Your task to perform on an android device: toggle wifi Image 0: 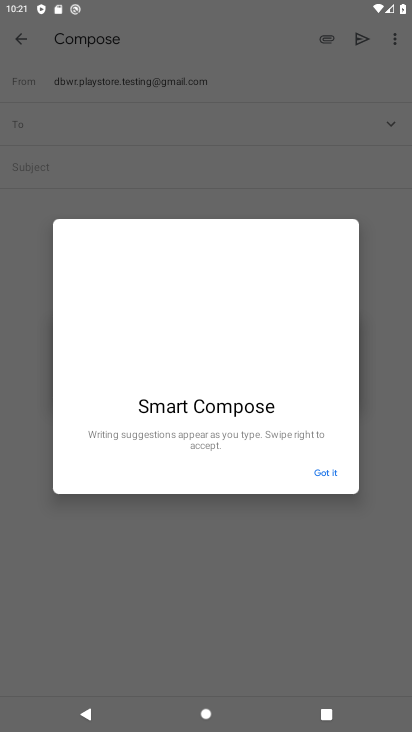
Step 0: press home button
Your task to perform on an android device: toggle wifi Image 1: 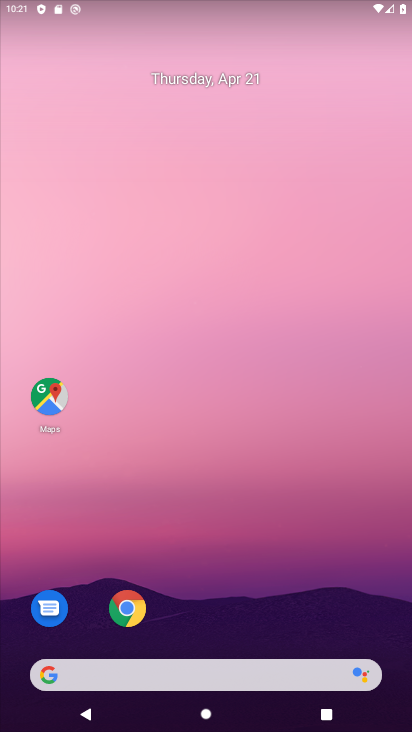
Step 1: drag from (232, 466) to (200, 102)
Your task to perform on an android device: toggle wifi Image 2: 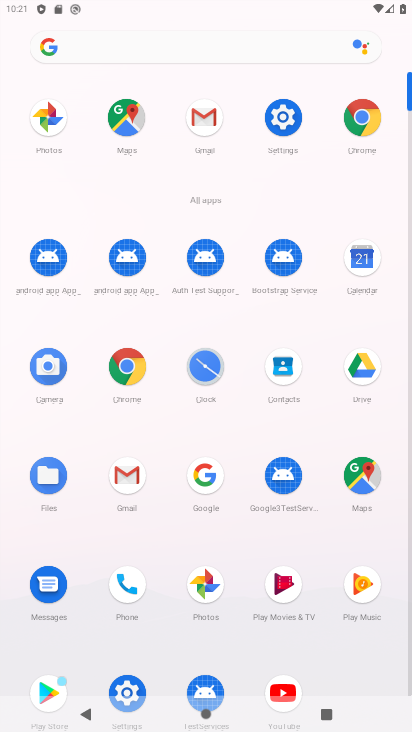
Step 2: click (284, 113)
Your task to perform on an android device: toggle wifi Image 3: 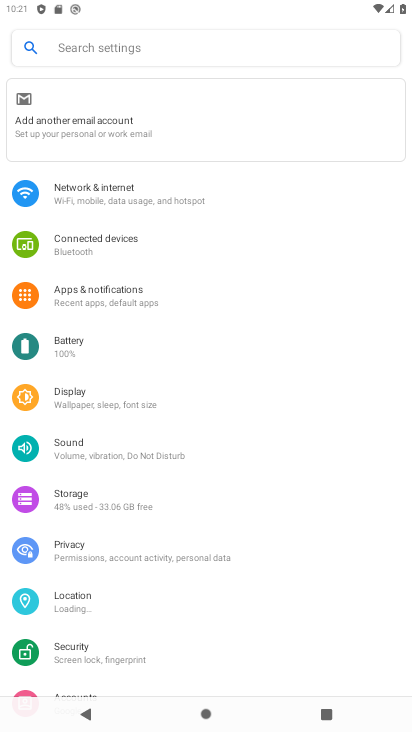
Step 3: click (98, 187)
Your task to perform on an android device: toggle wifi Image 4: 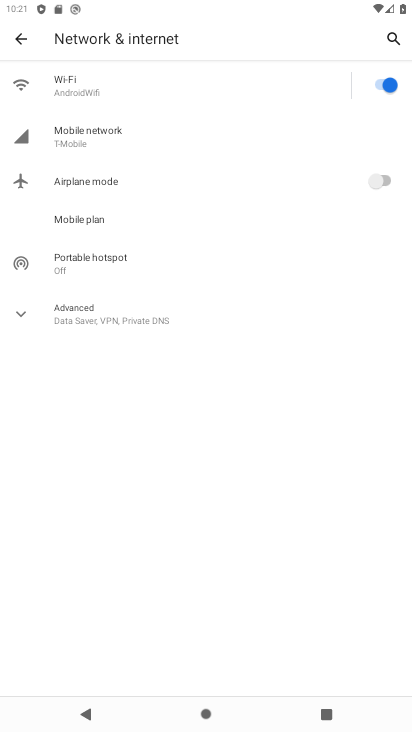
Step 4: click (379, 81)
Your task to perform on an android device: toggle wifi Image 5: 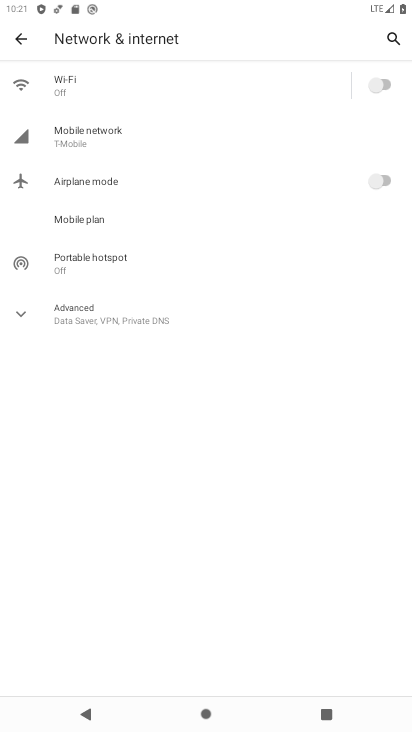
Step 5: task complete